Your task to perform on an android device: open app "Skype" (install if not already installed) Image 0: 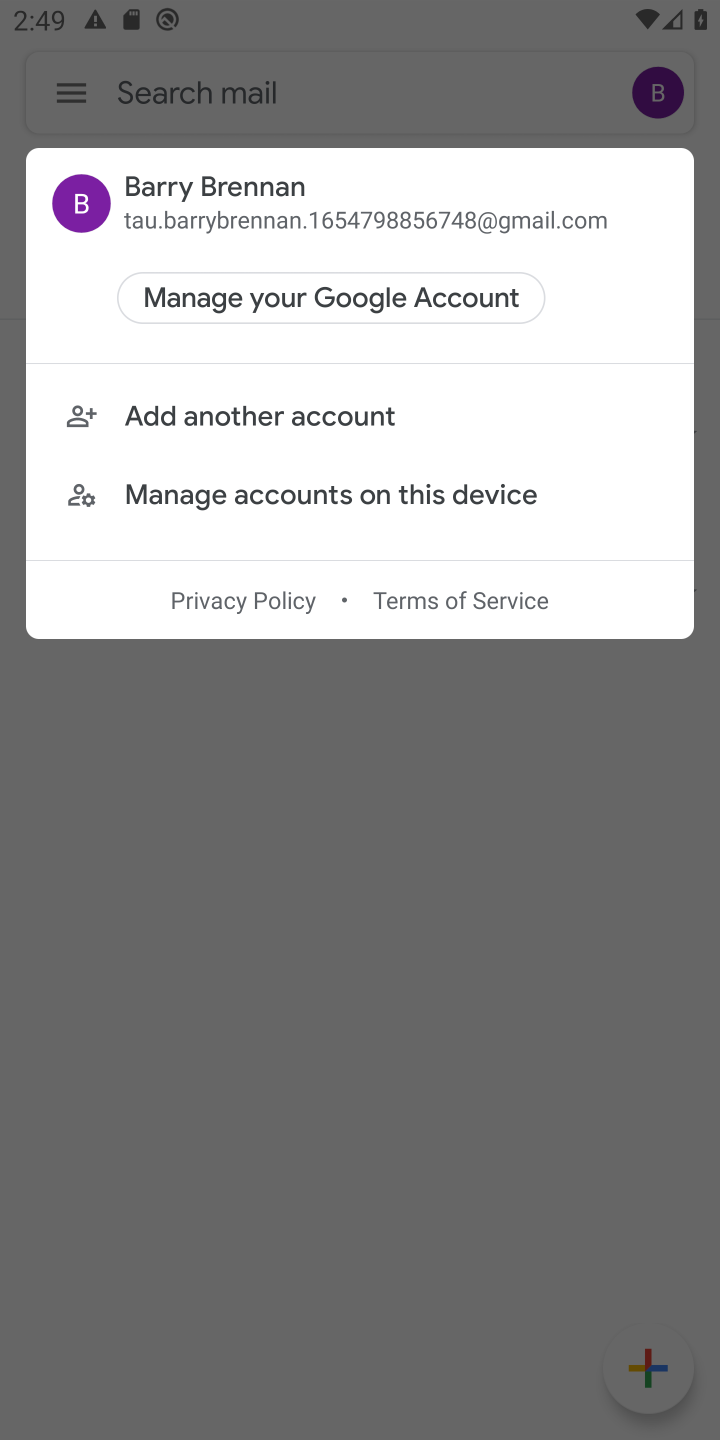
Step 0: press home button
Your task to perform on an android device: open app "Skype" (install if not already installed) Image 1: 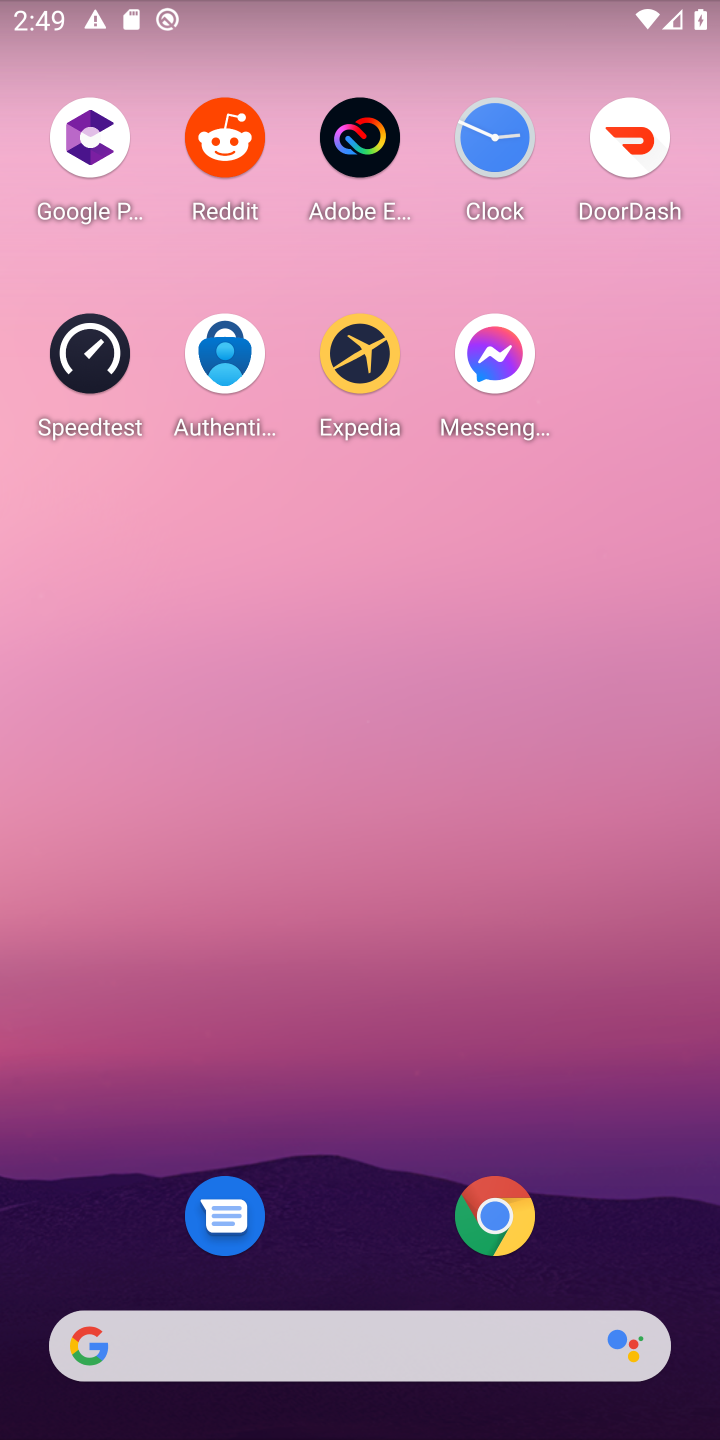
Step 1: drag from (632, 1264) to (610, 240)
Your task to perform on an android device: open app "Skype" (install if not already installed) Image 2: 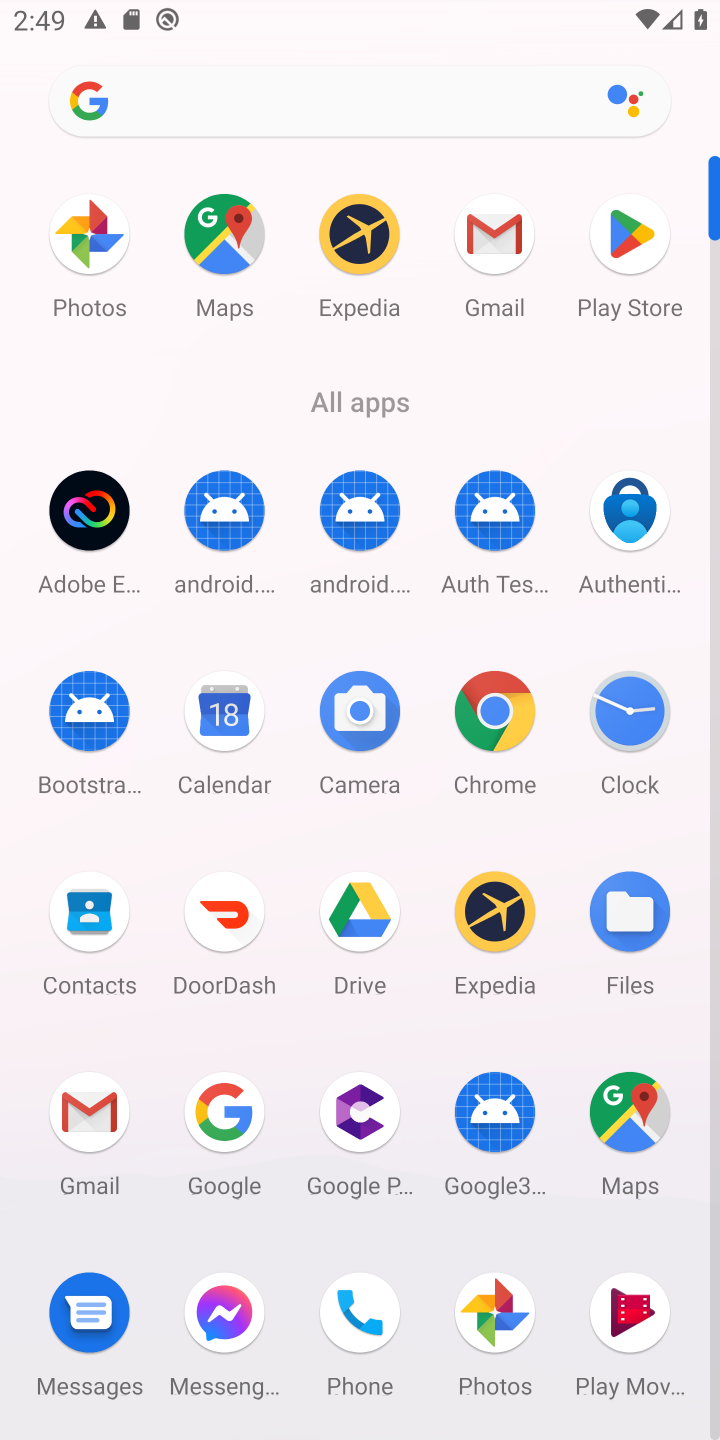
Step 2: drag from (402, 1223) to (409, 613)
Your task to perform on an android device: open app "Skype" (install if not already installed) Image 3: 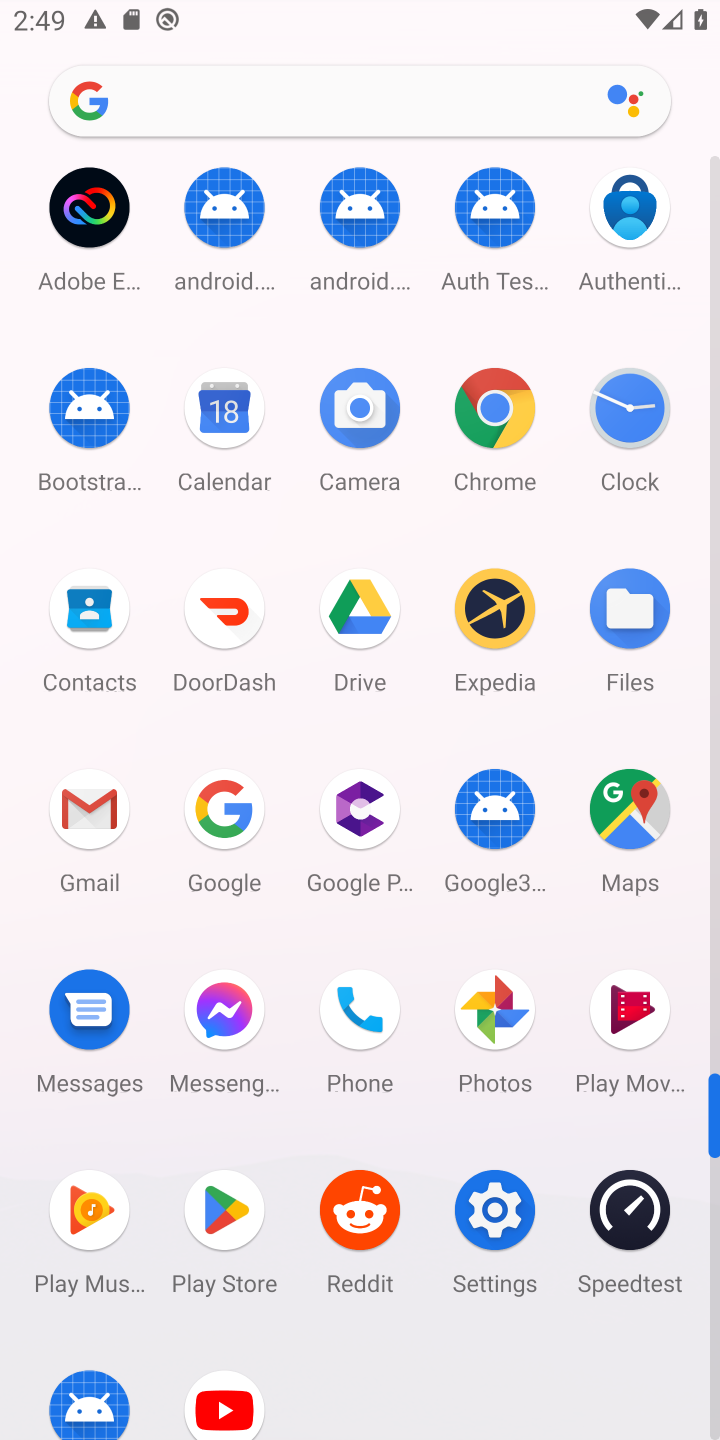
Step 3: click (223, 1214)
Your task to perform on an android device: open app "Skype" (install if not already installed) Image 4: 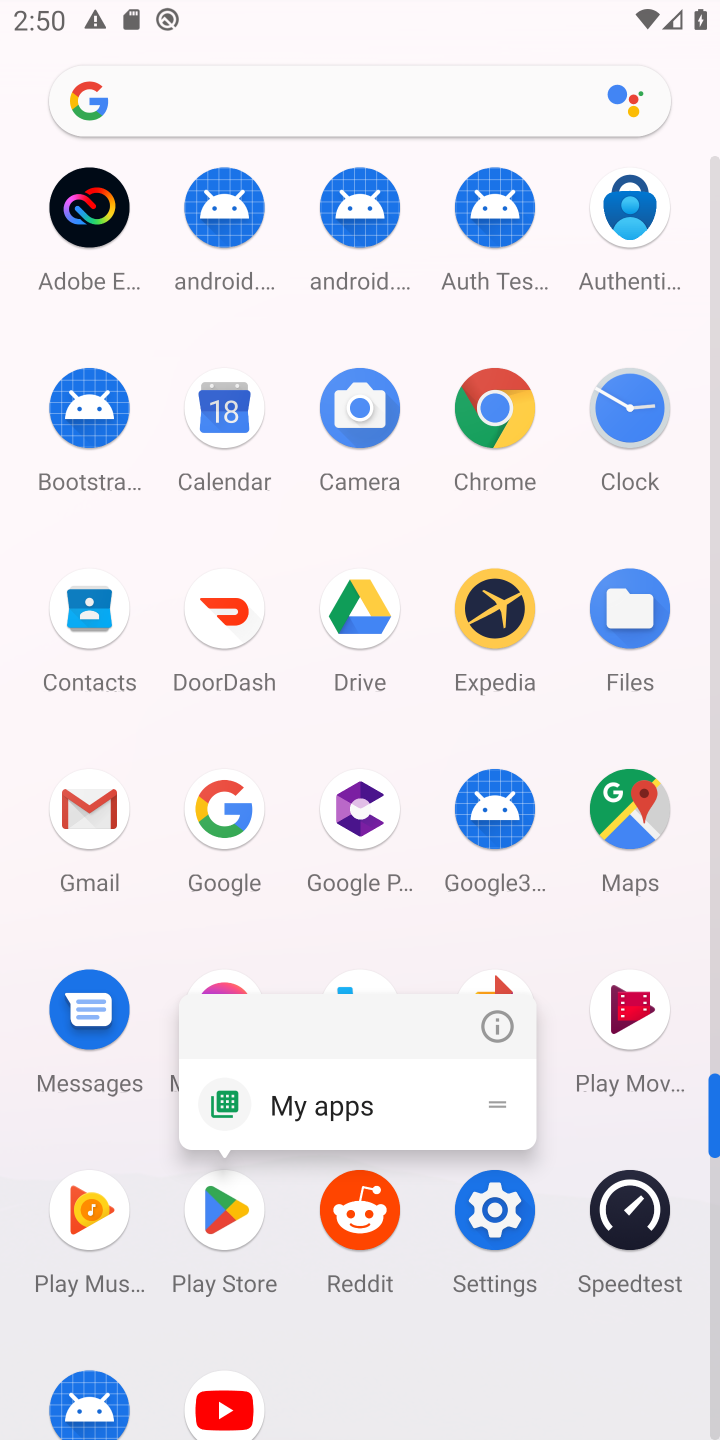
Step 4: click (223, 1214)
Your task to perform on an android device: open app "Skype" (install if not already installed) Image 5: 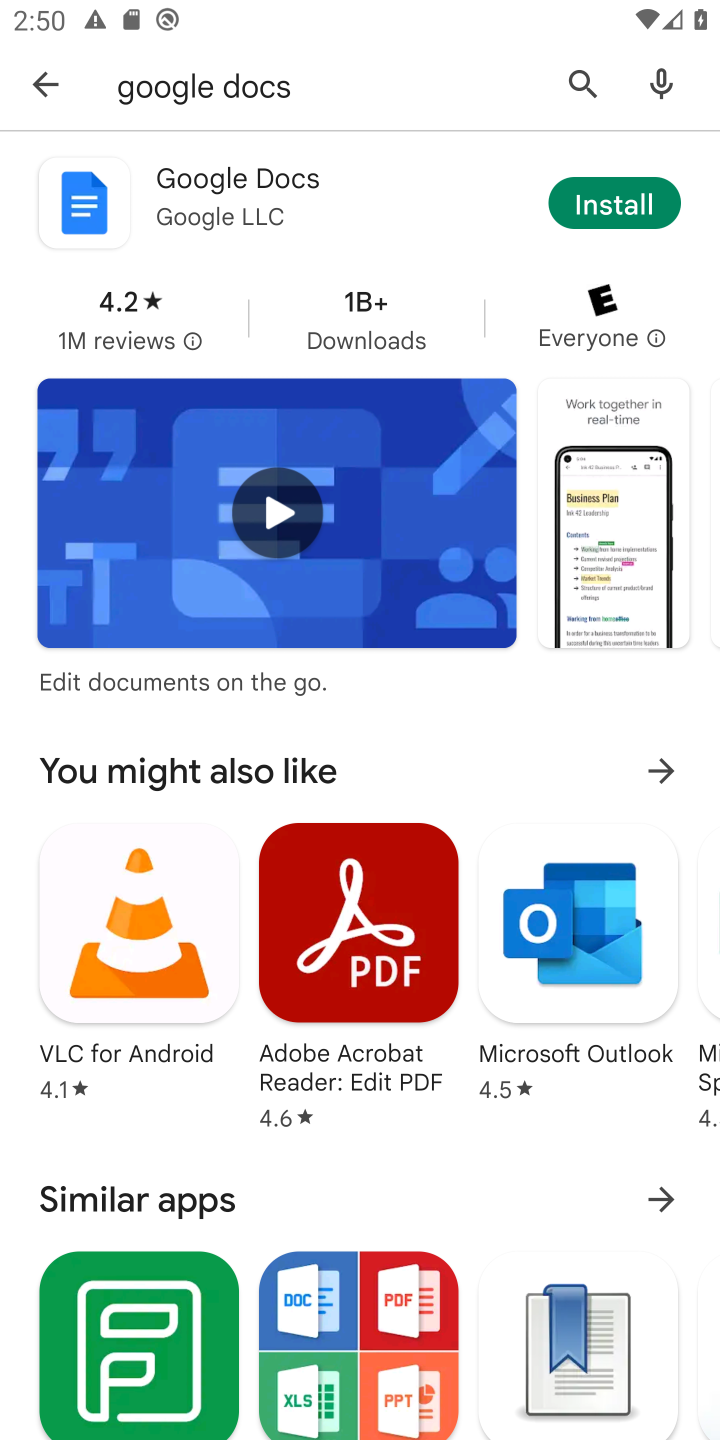
Step 5: click (586, 83)
Your task to perform on an android device: open app "Skype" (install if not already installed) Image 6: 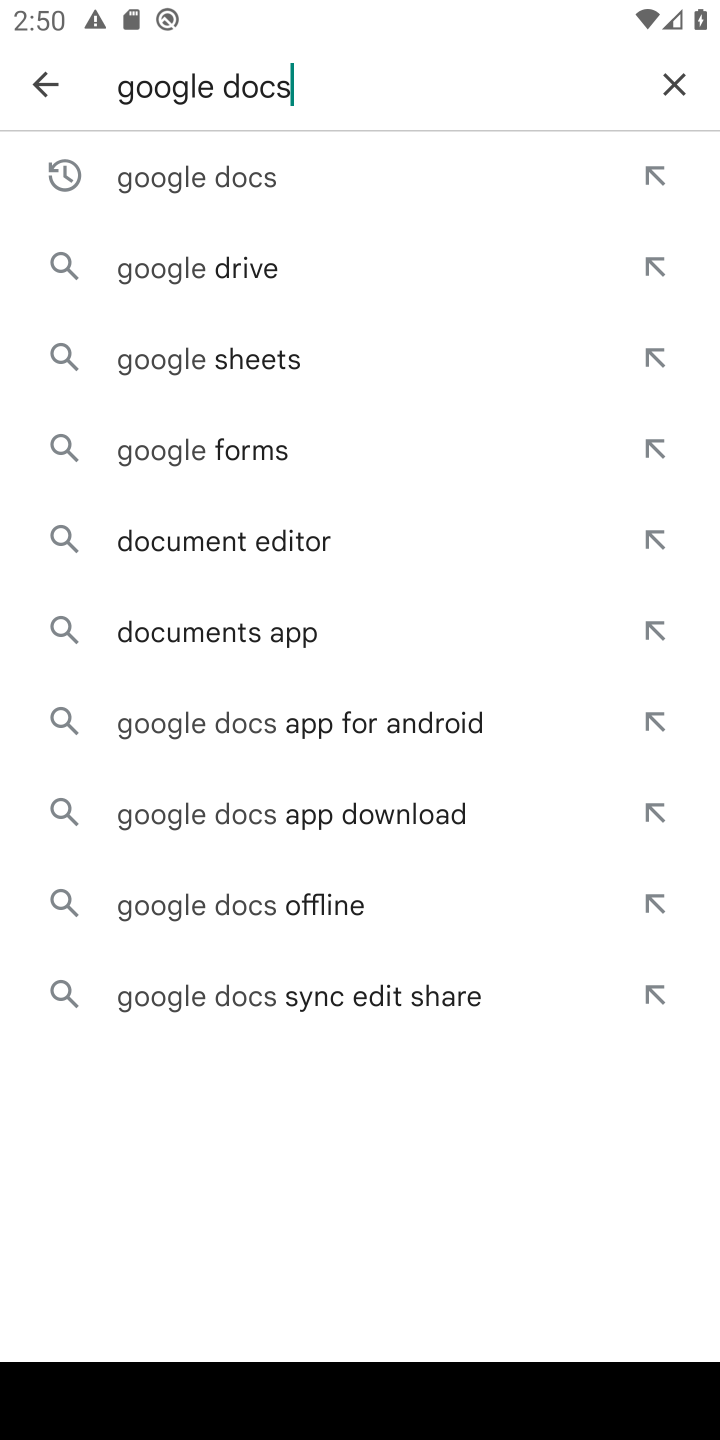
Step 6: click (675, 77)
Your task to perform on an android device: open app "Skype" (install if not already installed) Image 7: 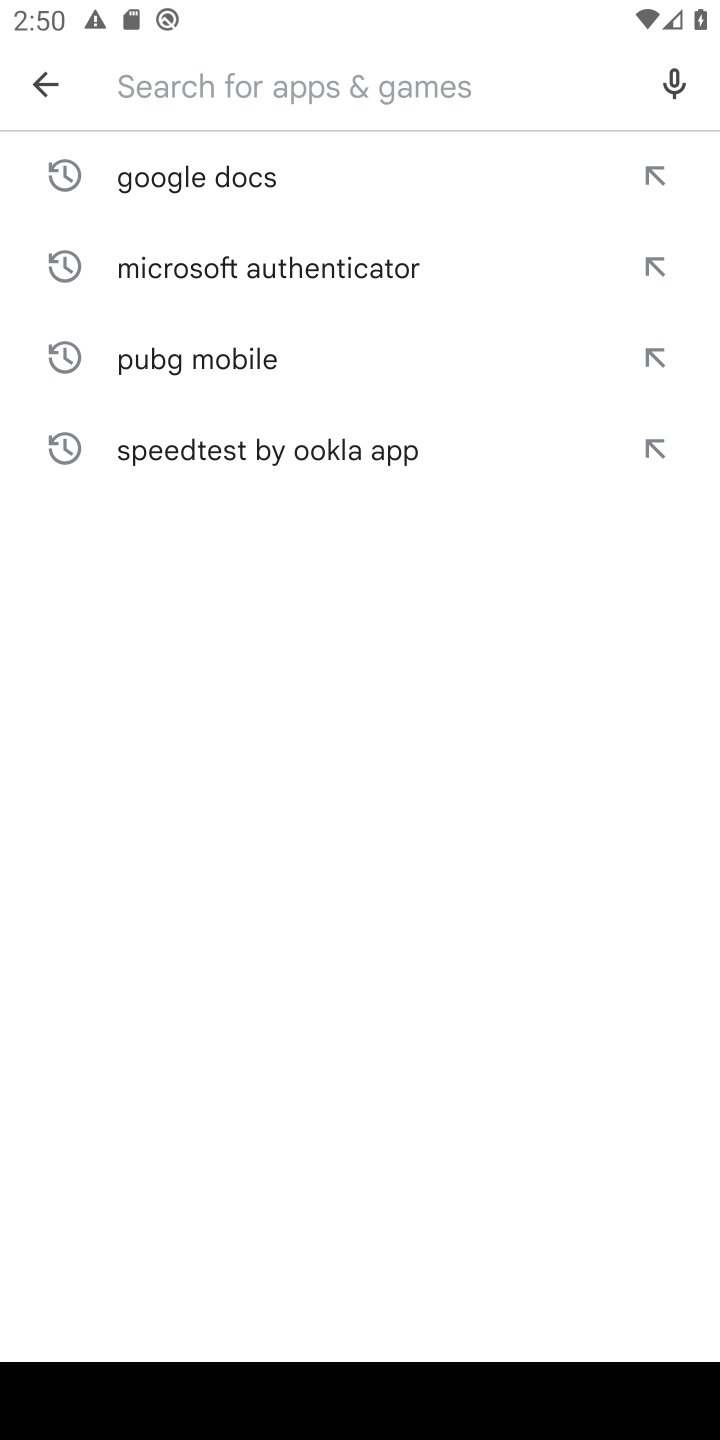
Step 7: type "Skype"
Your task to perform on an android device: open app "Skype" (install if not already installed) Image 8: 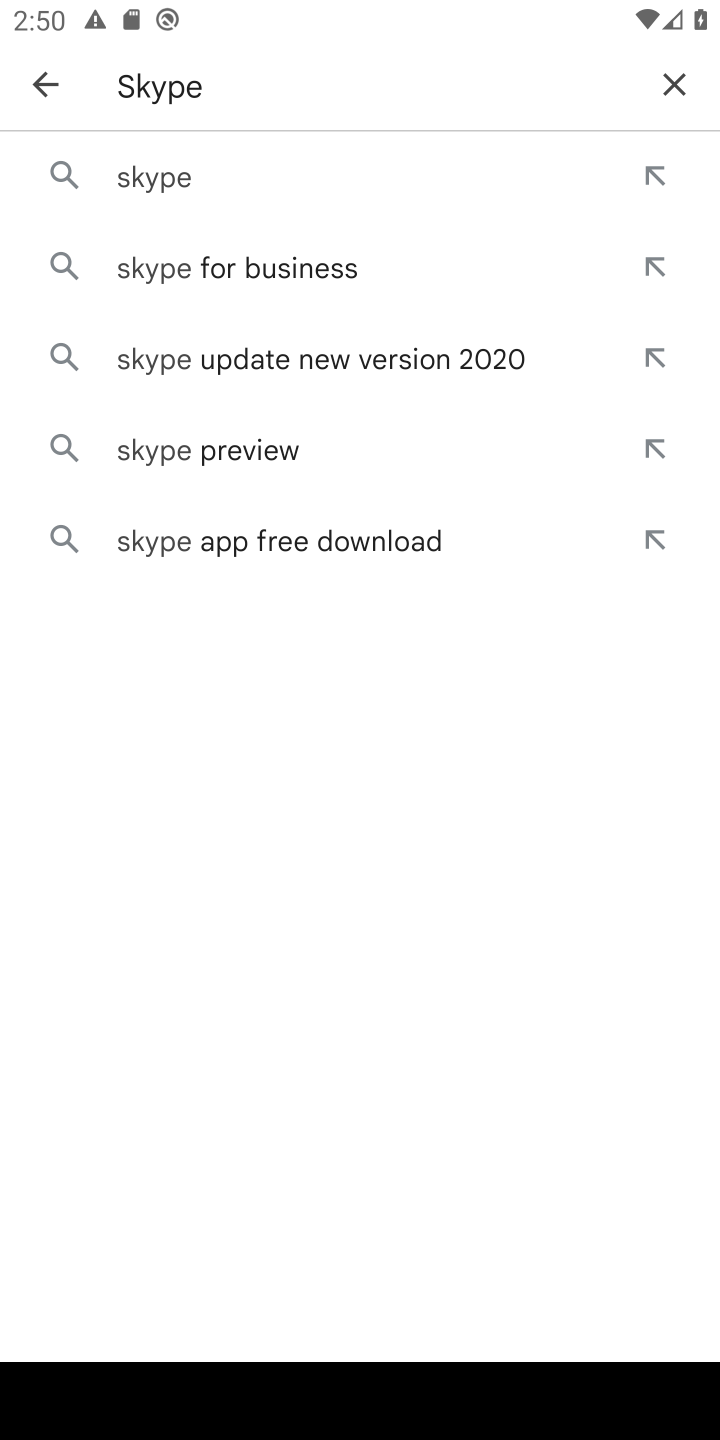
Step 8: click (141, 185)
Your task to perform on an android device: open app "Skype" (install if not already installed) Image 9: 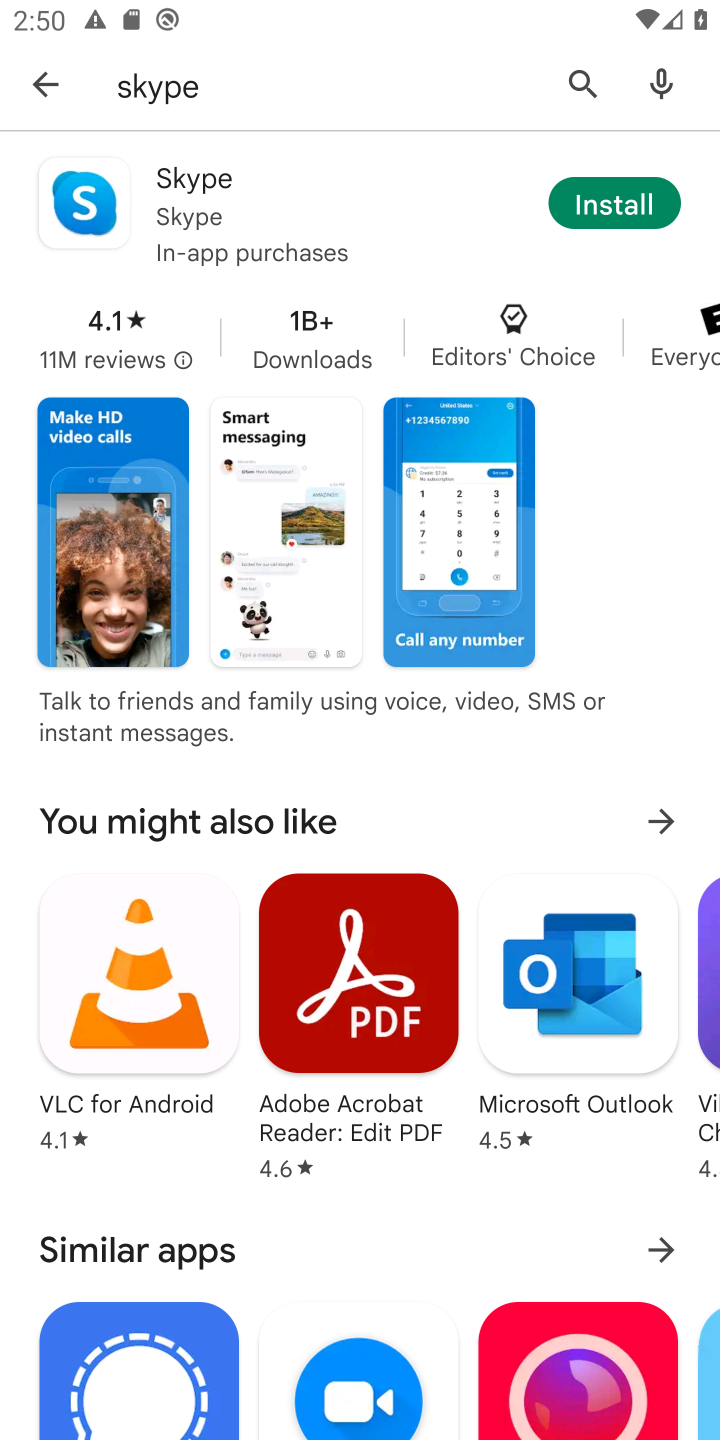
Step 9: click (633, 205)
Your task to perform on an android device: open app "Skype" (install if not already installed) Image 10: 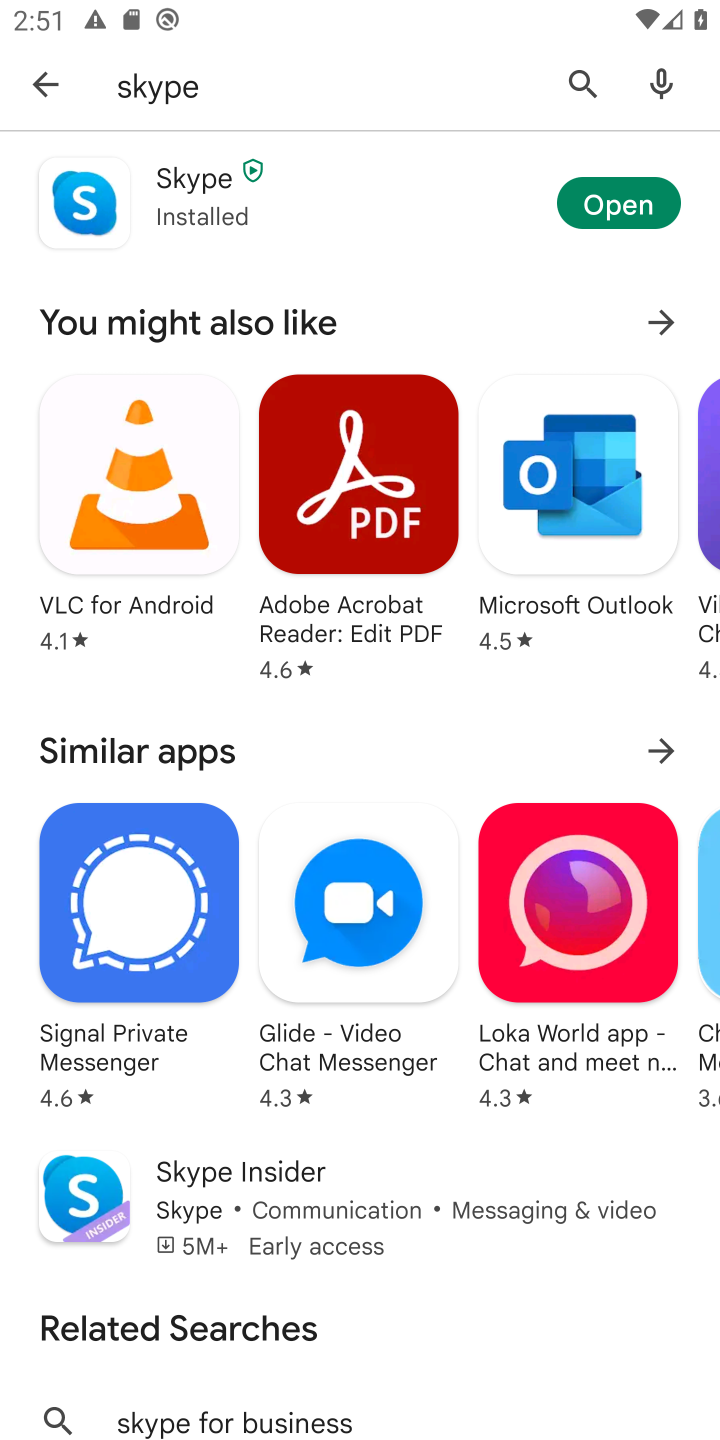
Step 10: click (603, 206)
Your task to perform on an android device: open app "Skype" (install if not already installed) Image 11: 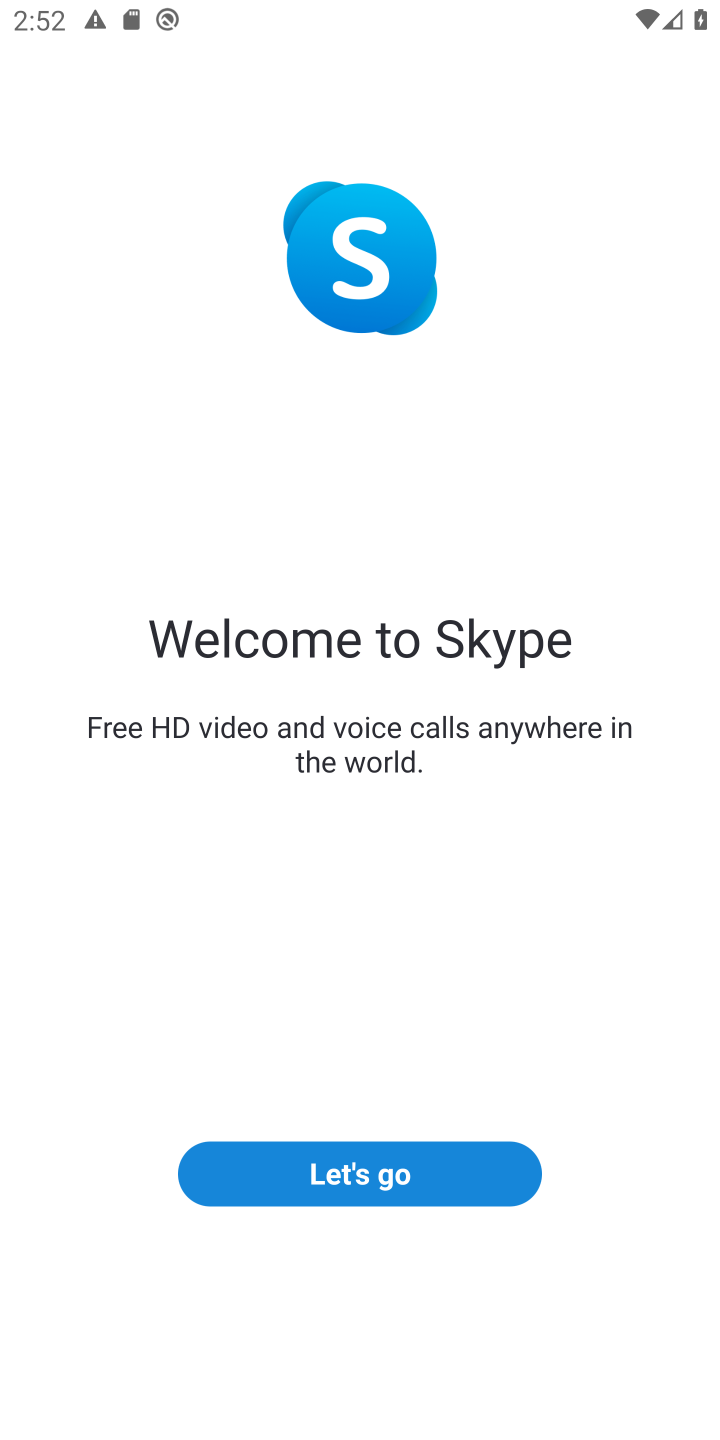
Step 11: task complete